Your task to perform on an android device: Show me popular videos on Youtube Image 0: 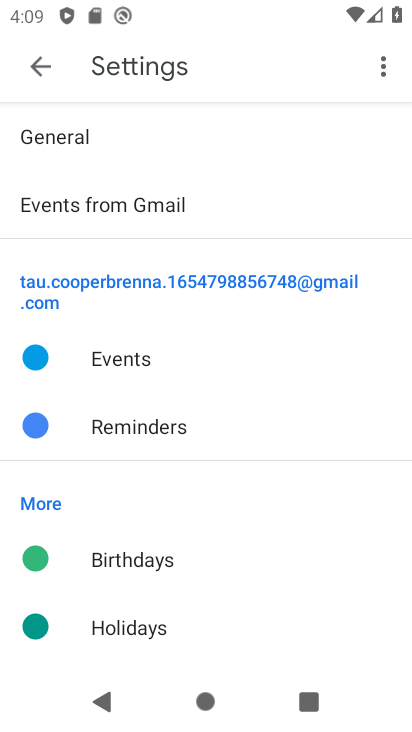
Step 0: press home button
Your task to perform on an android device: Show me popular videos on Youtube Image 1: 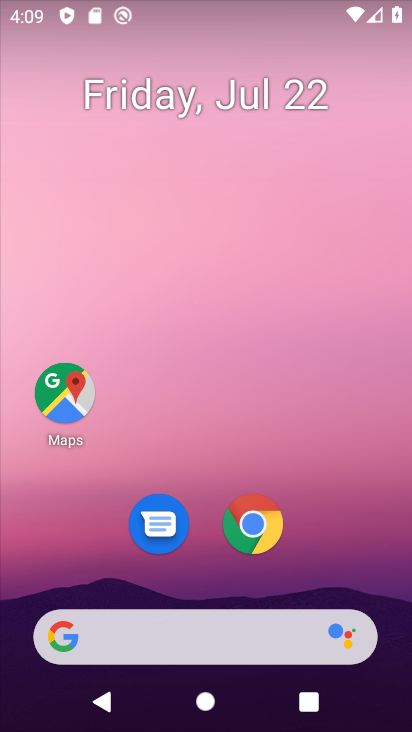
Step 1: drag from (325, 534) to (337, 26)
Your task to perform on an android device: Show me popular videos on Youtube Image 2: 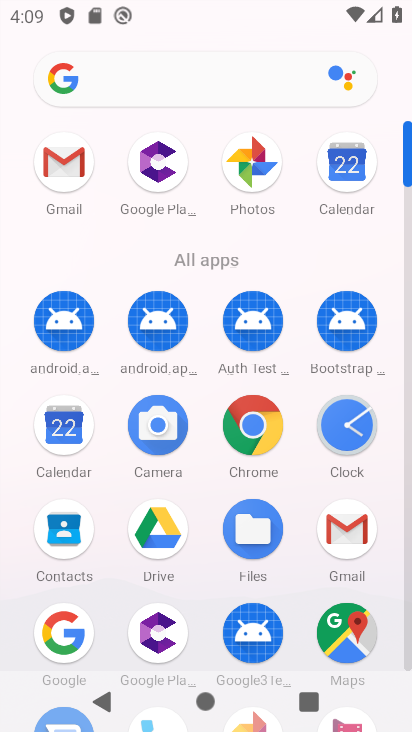
Step 2: drag from (205, 581) to (233, 69)
Your task to perform on an android device: Show me popular videos on Youtube Image 3: 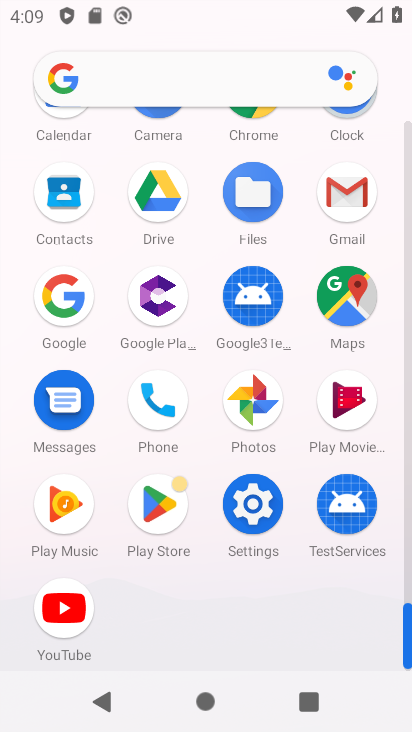
Step 3: click (76, 601)
Your task to perform on an android device: Show me popular videos on Youtube Image 4: 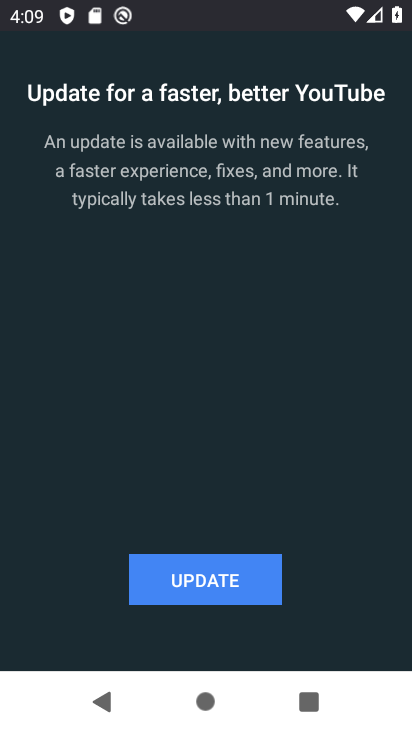
Step 4: click (269, 573)
Your task to perform on an android device: Show me popular videos on Youtube Image 5: 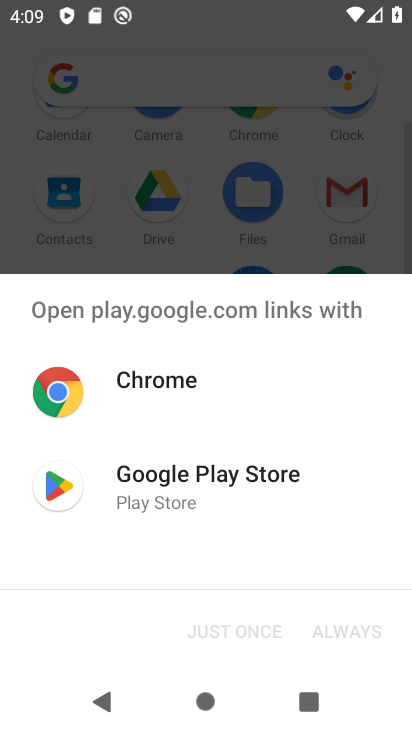
Step 5: click (161, 474)
Your task to perform on an android device: Show me popular videos on Youtube Image 6: 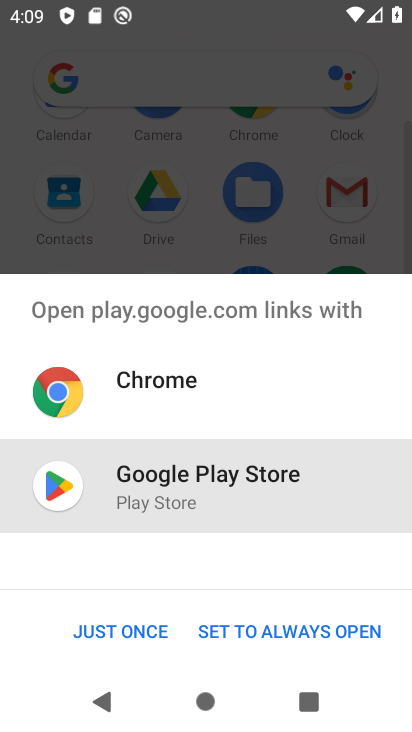
Step 6: click (128, 629)
Your task to perform on an android device: Show me popular videos on Youtube Image 7: 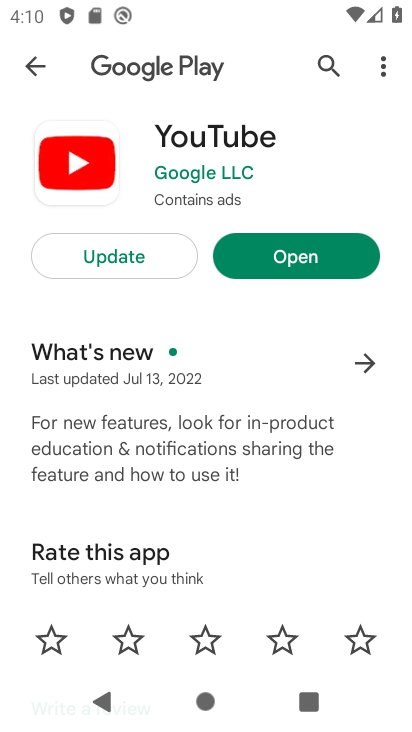
Step 7: click (142, 249)
Your task to perform on an android device: Show me popular videos on Youtube Image 8: 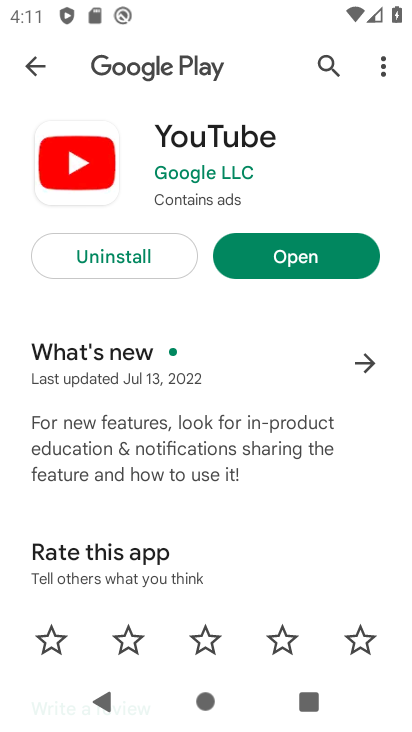
Step 8: click (281, 259)
Your task to perform on an android device: Show me popular videos on Youtube Image 9: 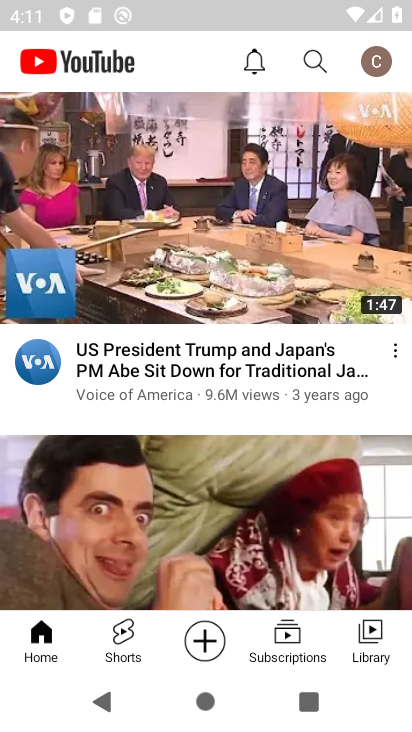
Step 9: click (314, 58)
Your task to perform on an android device: Show me popular videos on Youtube Image 10: 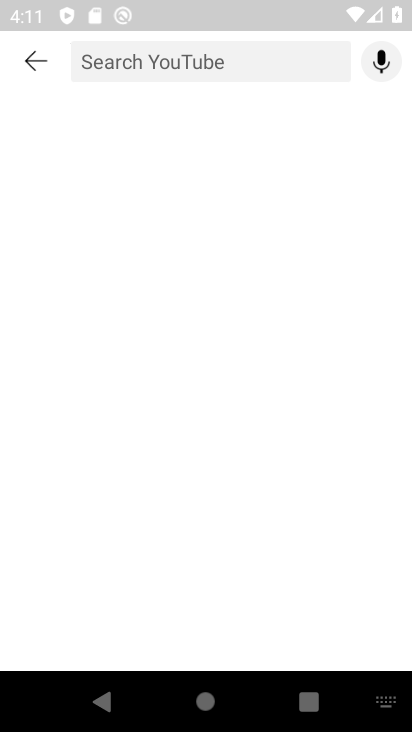
Step 10: type "popular videos"
Your task to perform on an android device: Show me popular videos on Youtube Image 11: 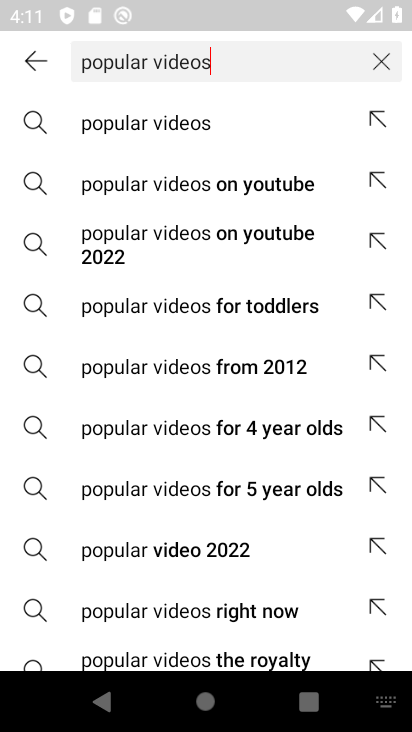
Step 11: click (278, 180)
Your task to perform on an android device: Show me popular videos on Youtube Image 12: 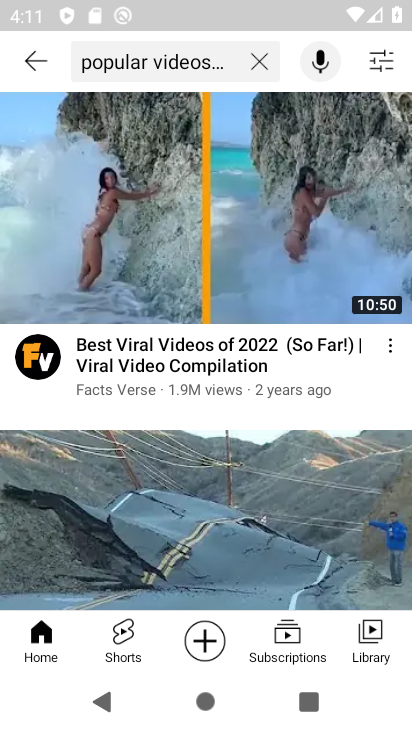
Step 12: drag from (255, 548) to (241, 289)
Your task to perform on an android device: Show me popular videos on Youtube Image 13: 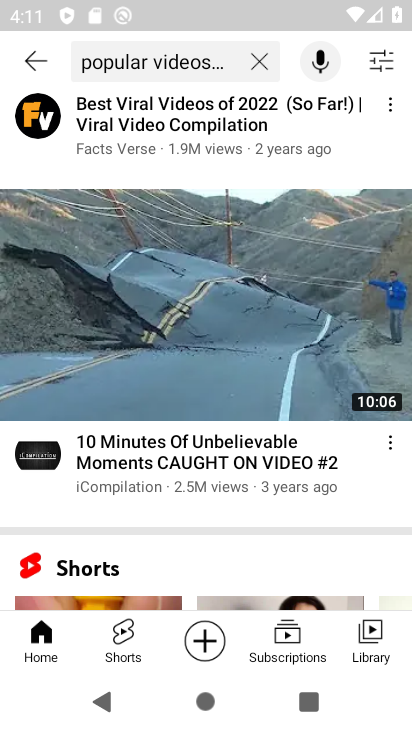
Step 13: click (233, 294)
Your task to perform on an android device: Show me popular videos on Youtube Image 14: 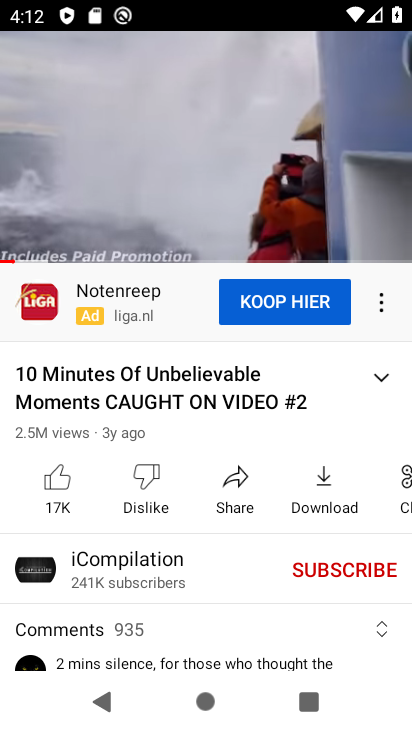
Step 14: task complete